Your task to perform on an android device: see creations saved in the google photos Image 0: 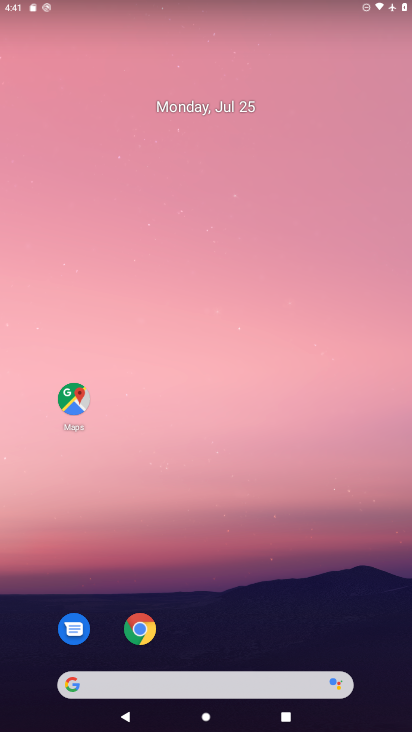
Step 0: drag from (225, 577) to (223, 25)
Your task to perform on an android device: see creations saved in the google photos Image 1: 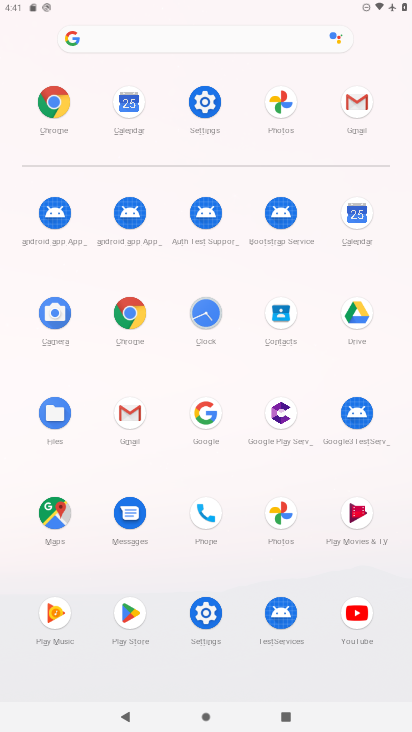
Step 1: click (285, 511)
Your task to perform on an android device: see creations saved in the google photos Image 2: 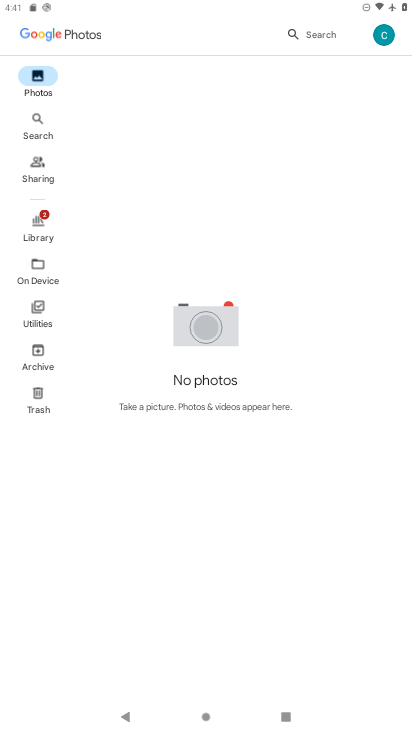
Step 2: task complete